Your task to perform on an android device: show emergency info Image 0: 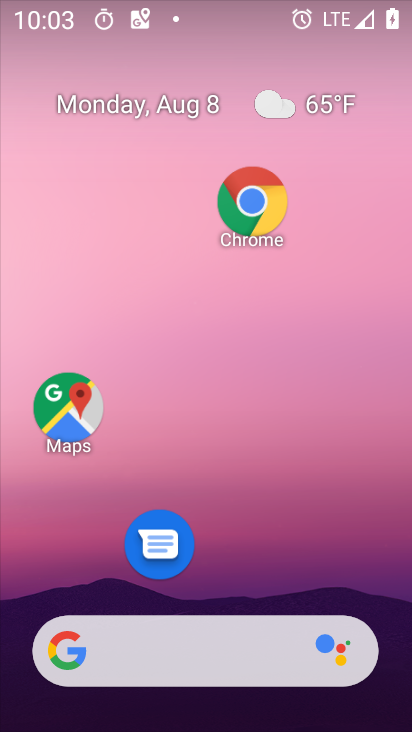
Step 0: press home button
Your task to perform on an android device: show emergency info Image 1: 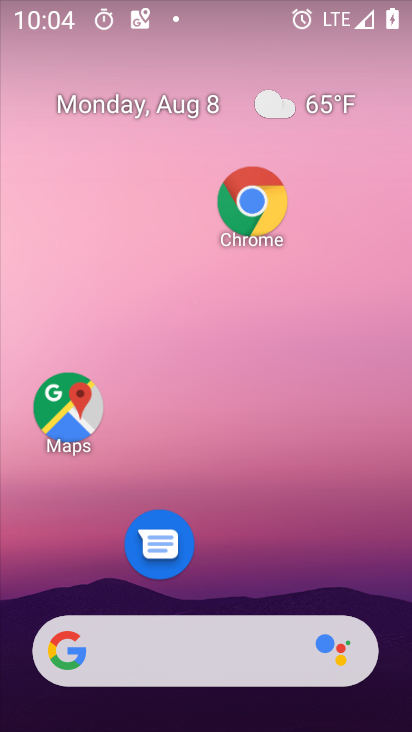
Step 1: drag from (223, 584) to (216, 59)
Your task to perform on an android device: show emergency info Image 2: 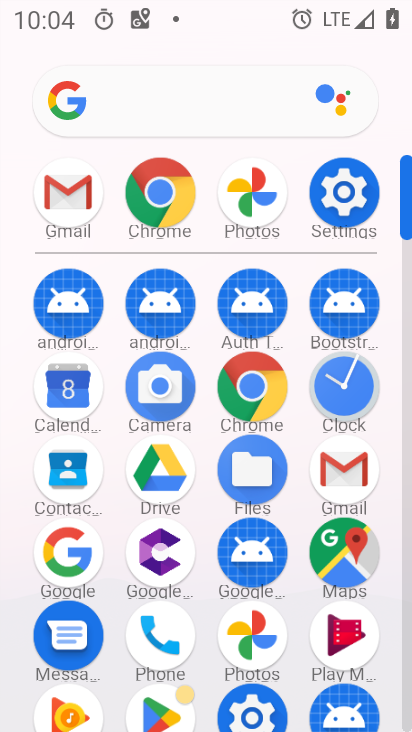
Step 2: click (343, 185)
Your task to perform on an android device: show emergency info Image 3: 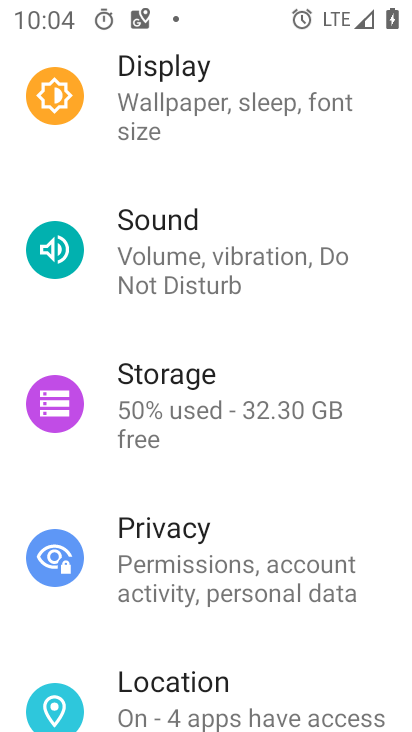
Step 3: drag from (248, 680) to (249, 162)
Your task to perform on an android device: show emergency info Image 4: 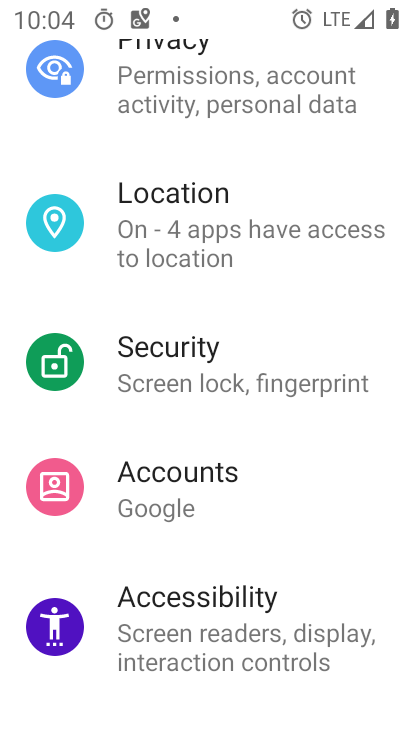
Step 4: drag from (195, 640) to (185, 123)
Your task to perform on an android device: show emergency info Image 5: 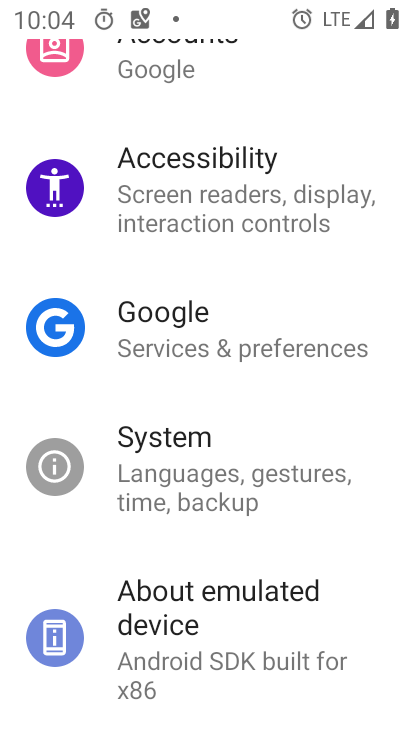
Step 5: click (220, 623)
Your task to perform on an android device: show emergency info Image 6: 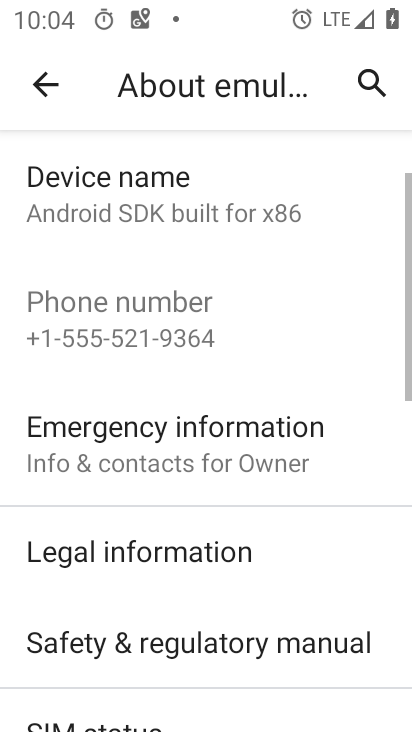
Step 6: drag from (154, 679) to (161, 612)
Your task to perform on an android device: show emergency info Image 7: 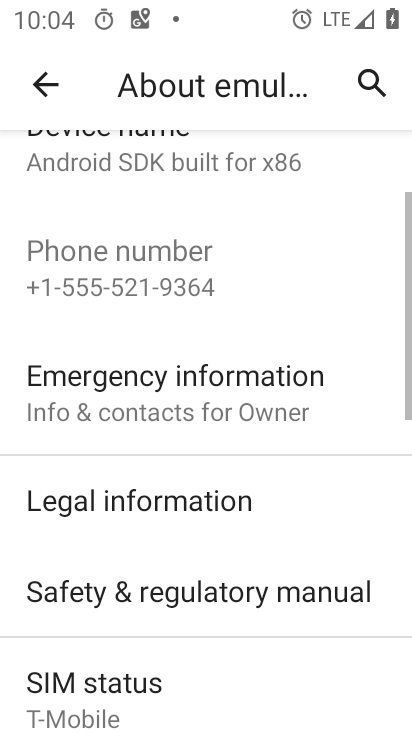
Step 7: click (326, 400)
Your task to perform on an android device: show emergency info Image 8: 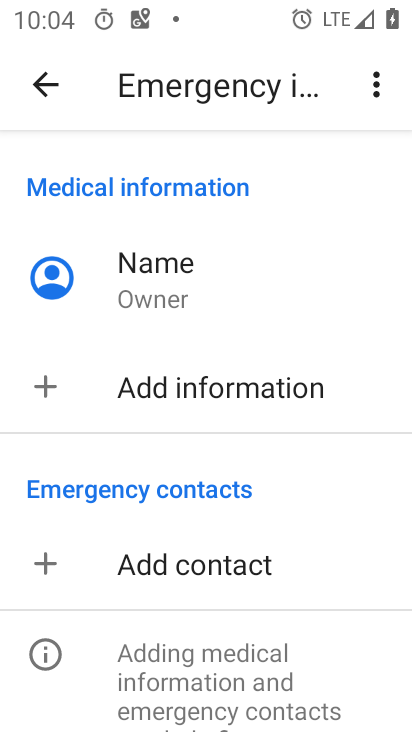
Step 8: task complete